Your task to perform on an android device: Turn off the flashlight Image 0: 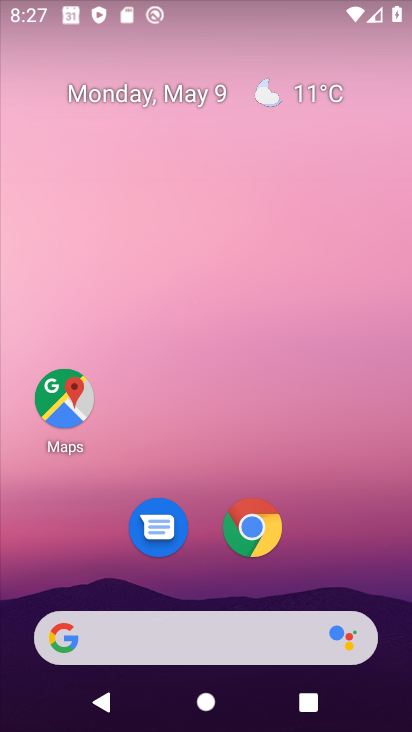
Step 0: drag from (198, 570) to (215, 95)
Your task to perform on an android device: Turn off the flashlight Image 1: 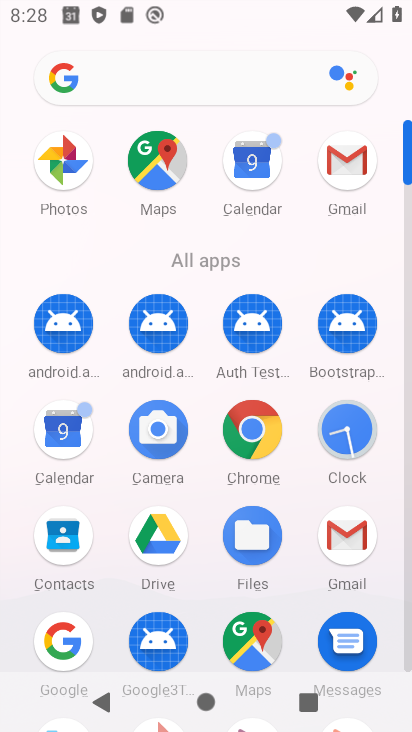
Step 1: drag from (198, 592) to (218, 17)
Your task to perform on an android device: Turn off the flashlight Image 2: 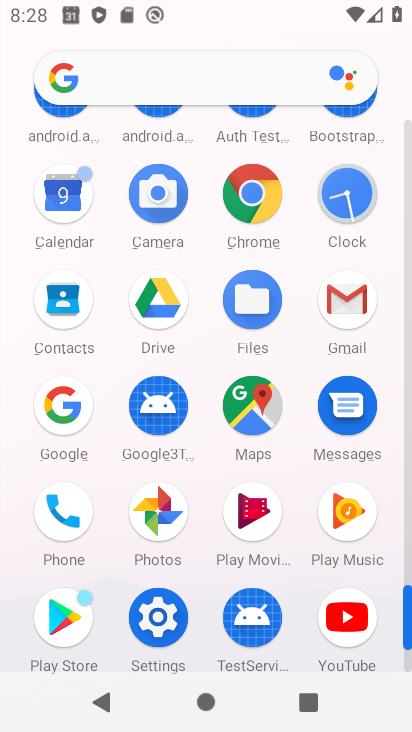
Step 2: click (159, 622)
Your task to perform on an android device: Turn off the flashlight Image 3: 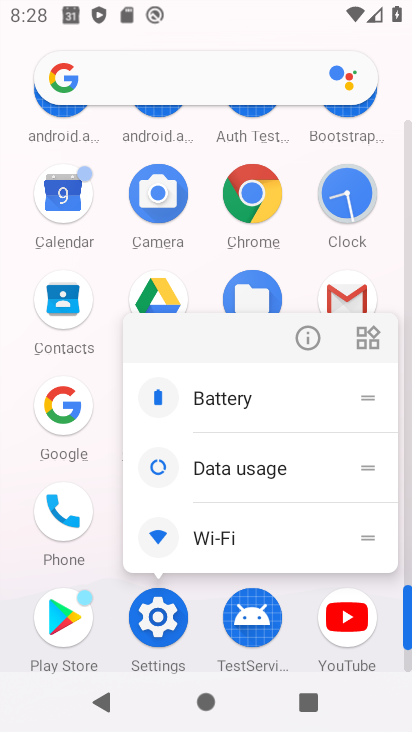
Step 3: click (159, 622)
Your task to perform on an android device: Turn off the flashlight Image 4: 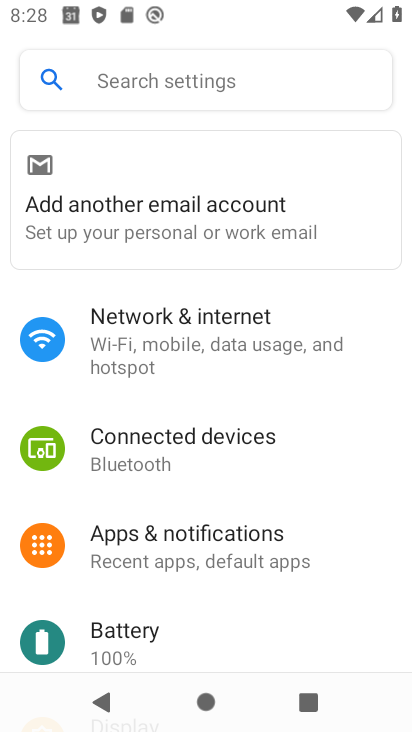
Step 4: click (206, 93)
Your task to perform on an android device: Turn off the flashlight Image 5: 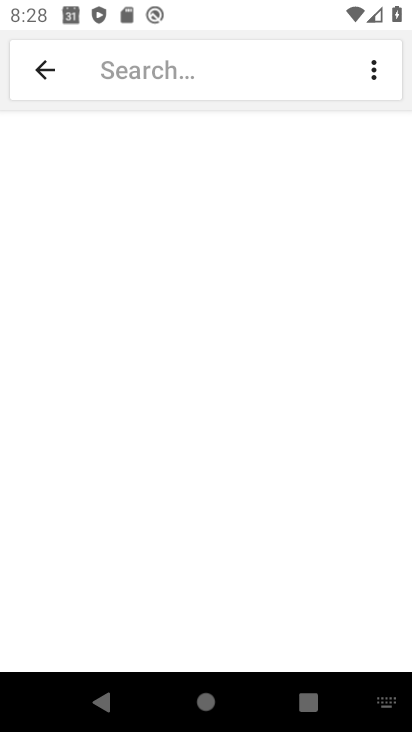
Step 5: type "flash"
Your task to perform on an android device: Turn off the flashlight Image 6: 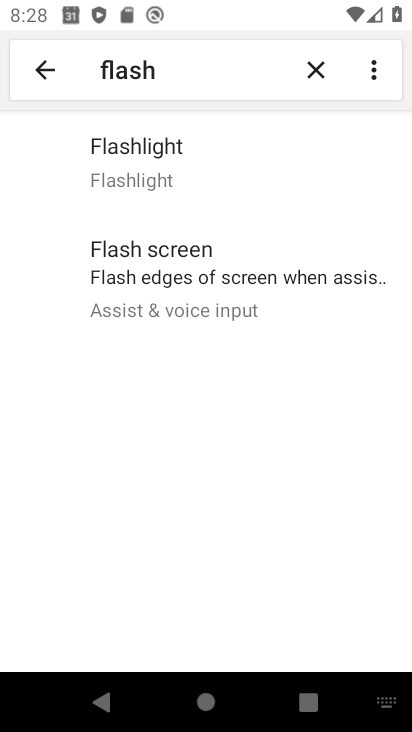
Step 6: task complete